Your task to perform on an android device: allow notifications from all sites in the chrome app Image 0: 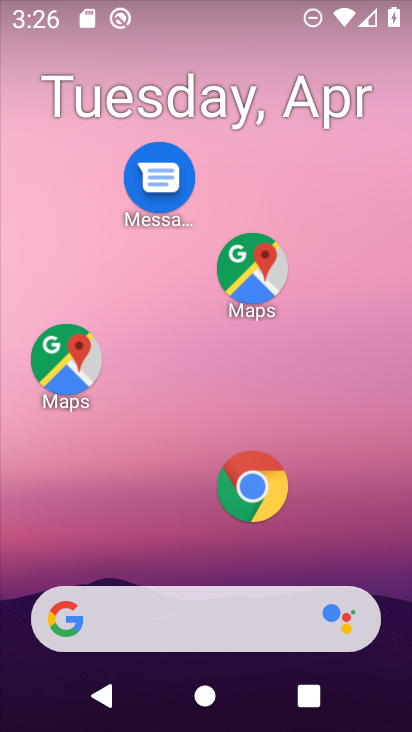
Step 0: click (288, 613)
Your task to perform on an android device: allow notifications from all sites in the chrome app Image 1: 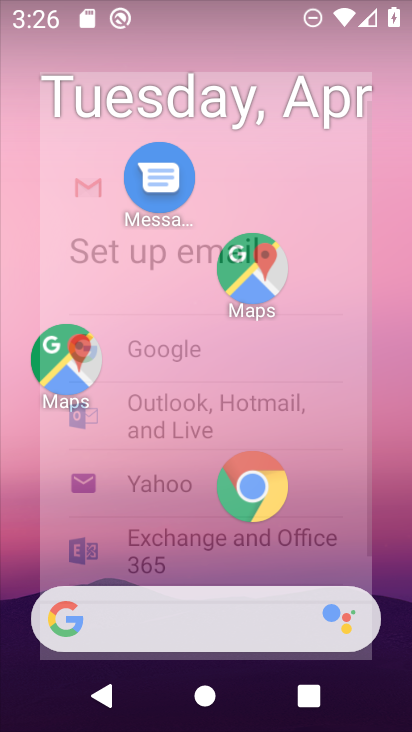
Step 1: drag from (226, 564) to (266, 148)
Your task to perform on an android device: allow notifications from all sites in the chrome app Image 2: 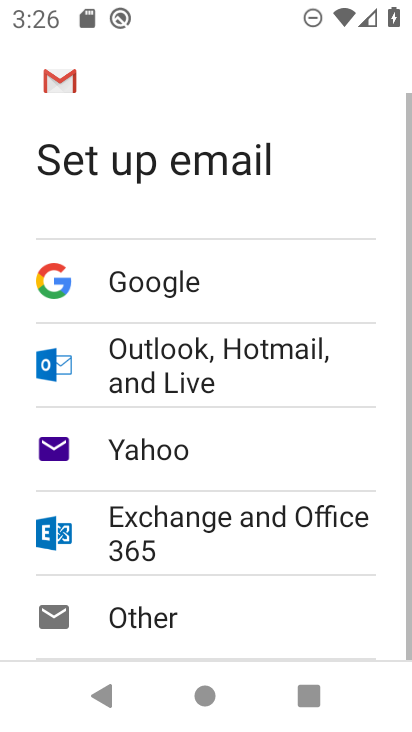
Step 2: press home button
Your task to perform on an android device: allow notifications from all sites in the chrome app Image 3: 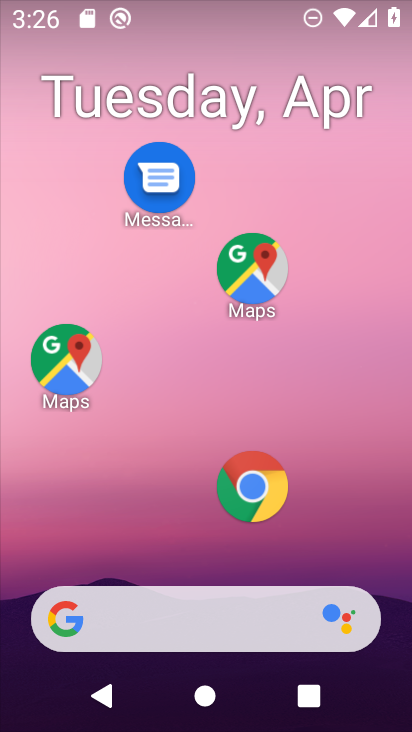
Step 3: click (246, 488)
Your task to perform on an android device: allow notifications from all sites in the chrome app Image 4: 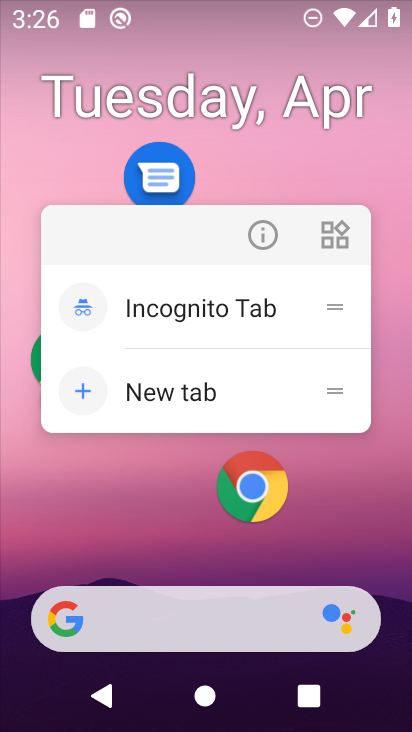
Step 4: click (278, 241)
Your task to perform on an android device: allow notifications from all sites in the chrome app Image 5: 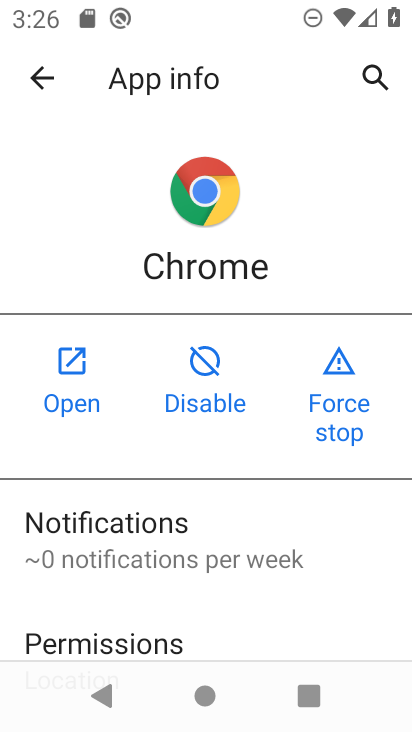
Step 5: click (49, 405)
Your task to perform on an android device: allow notifications from all sites in the chrome app Image 6: 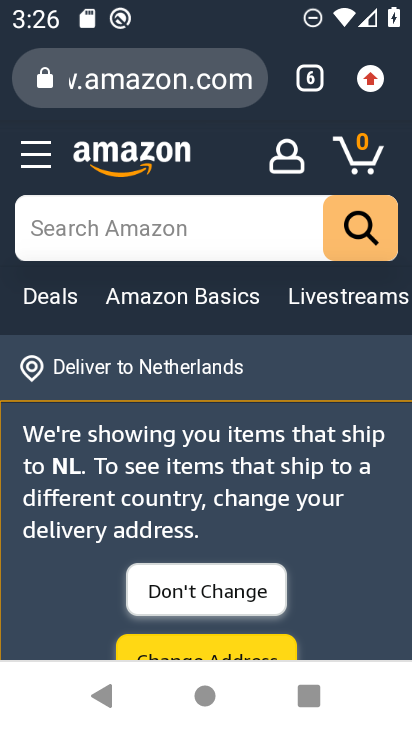
Step 6: click (364, 84)
Your task to perform on an android device: allow notifications from all sites in the chrome app Image 7: 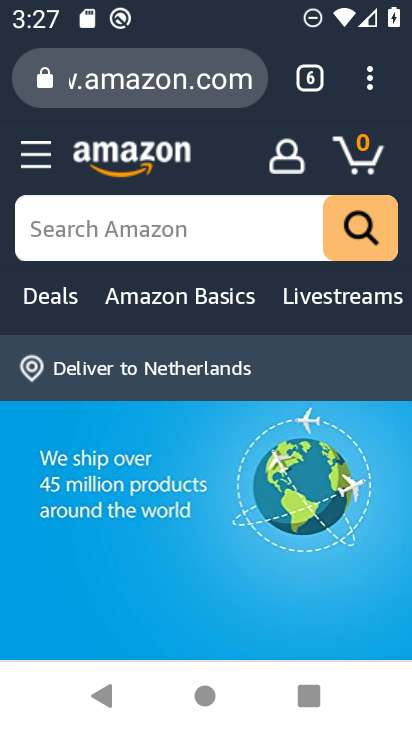
Step 7: click (372, 87)
Your task to perform on an android device: allow notifications from all sites in the chrome app Image 8: 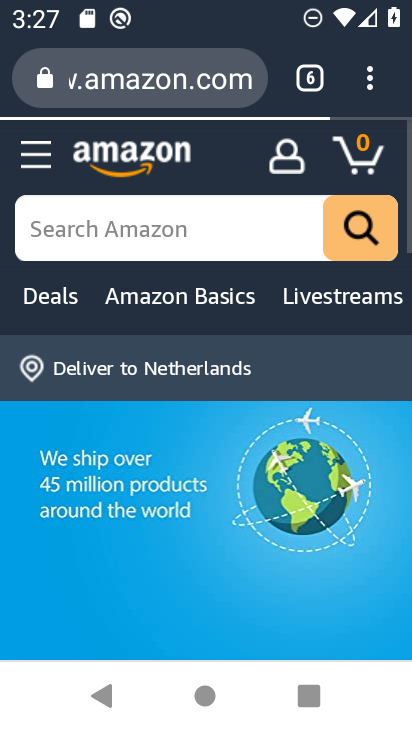
Step 8: click (370, 85)
Your task to perform on an android device: allow notifications from all sites in the chrome app Image 9: 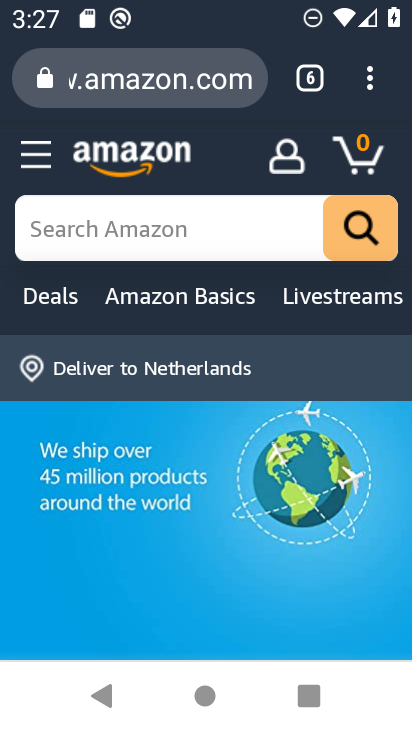
Step 9: click (371, 82)
Your task to perform on an android device: allow notifications from all sites in the chrome app Image 10: 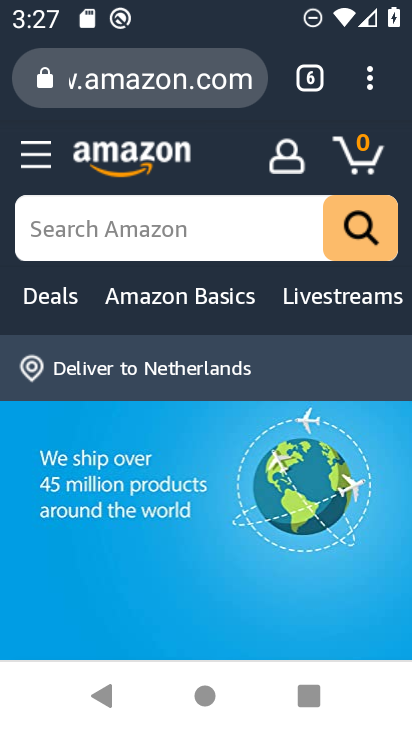
Step 10: click (373, 86)
Your task to perform on an android device: allow notifications from all sites in the chrome app Image 11: 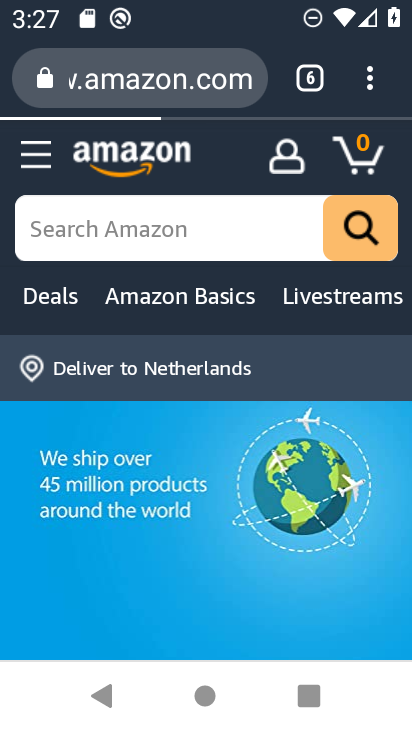
Step 11: click (368, 68)
Your task to perform on an android device: allow notifications from all sites in the chrome app Image 12: 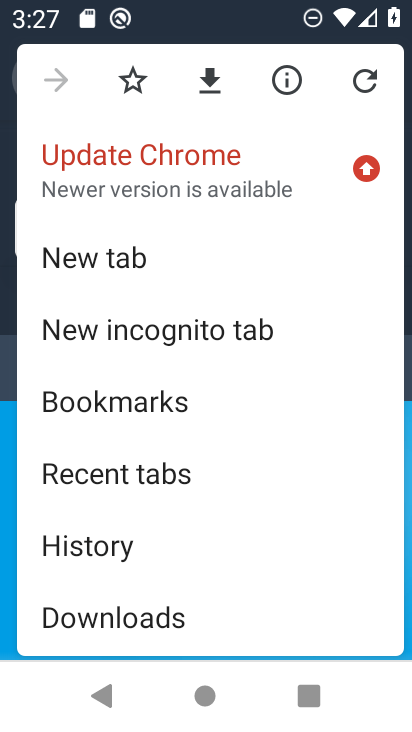
Step 12: drag from (190, 510) to (263, 223)
Your task to perform on an android device: allow notifications from all sites in the chrome app Image 13: 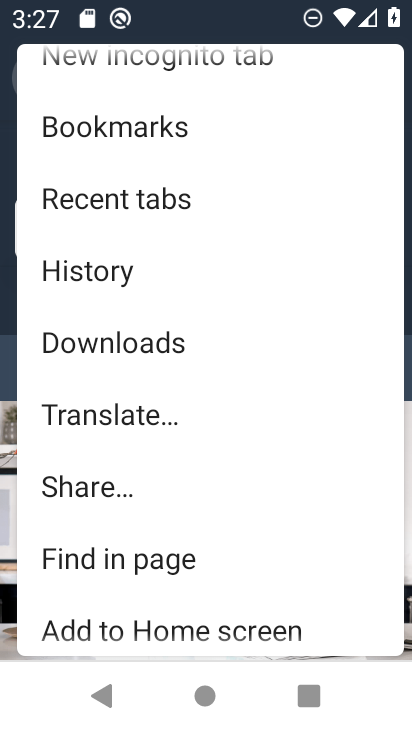
Step 13: drag from (206, 576) to (230, 351)
Your task to perform on an android device: allow notifications from all sites in the chrome app Image 14: 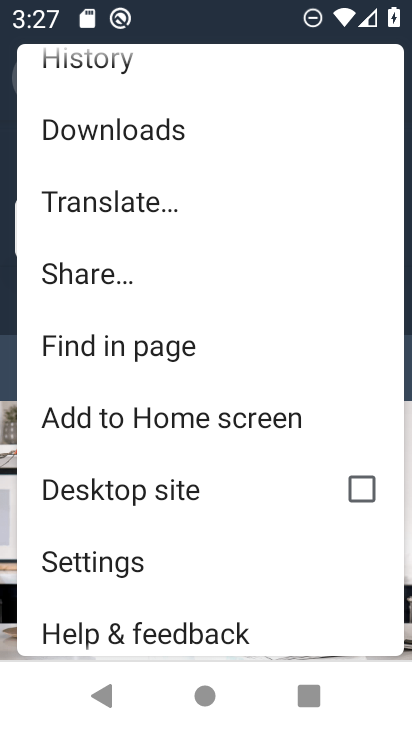
Step 14: click (153, 574)
Your task to perform on an android device: allow notifications from all sites in the chrome app Image 15: 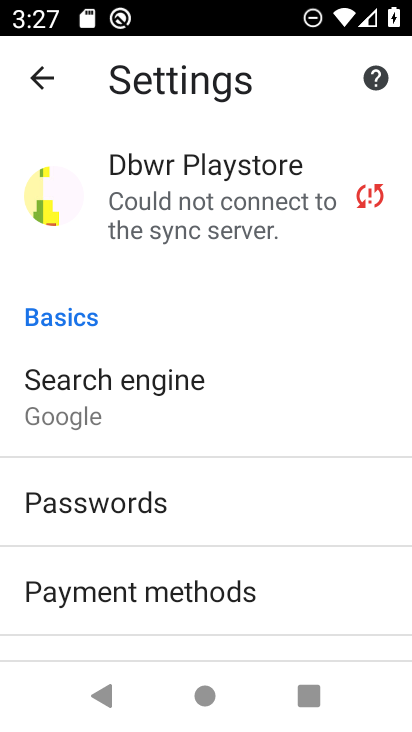
Step 15: drag from (145, 572) to (226, 264)
Your task to perform on an android device: allow notifications from all sites in the chrome app Image 16: 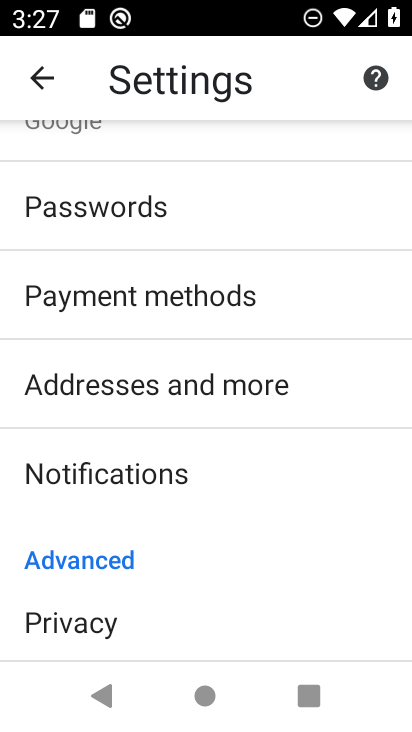
Step 16: click (204, 489)
Your task to perform on an android device: allow notifications from all sites in the chrome app Image 17: 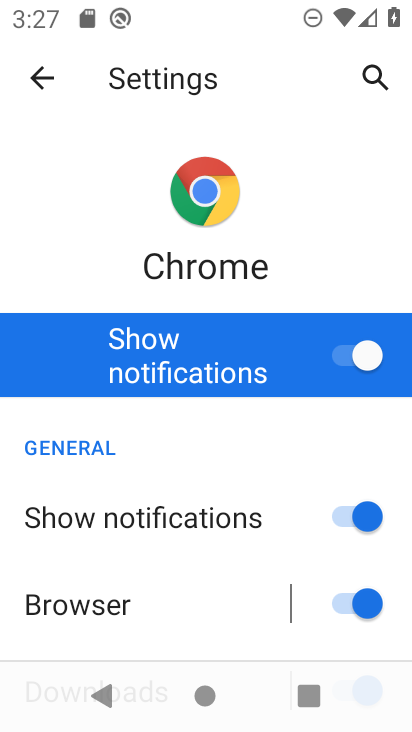
Step 17: task complete